Your task to perform on an android device: turn off airplane mode Image 0: 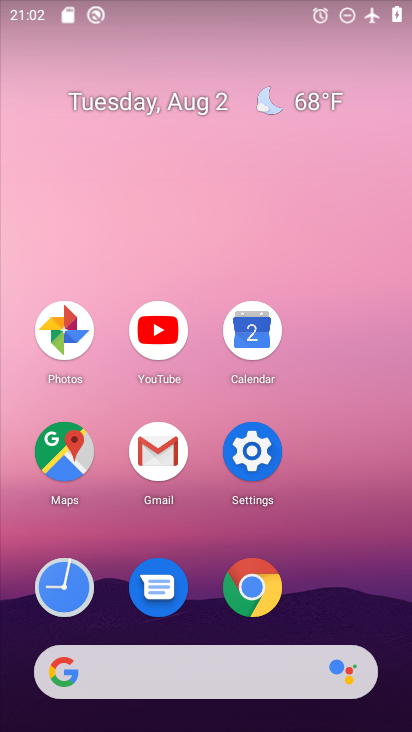
Step 0: click (253, 449)
Your task to perform on an android device: turn off airplane mode Image 1: 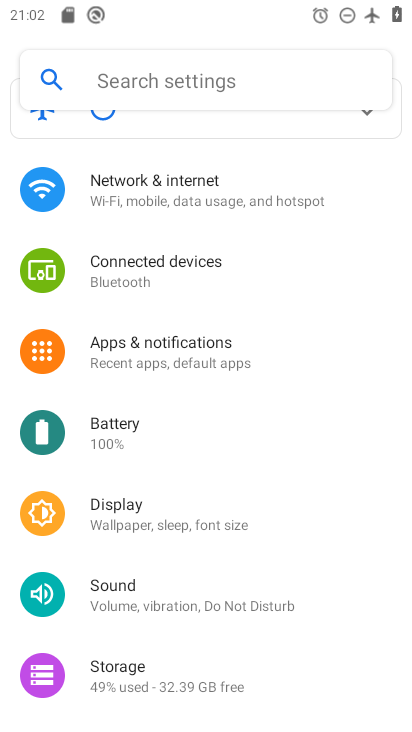
Step 1: click (157, 181)
Your task to perform on an android device: turn off airplane mode Image 2: 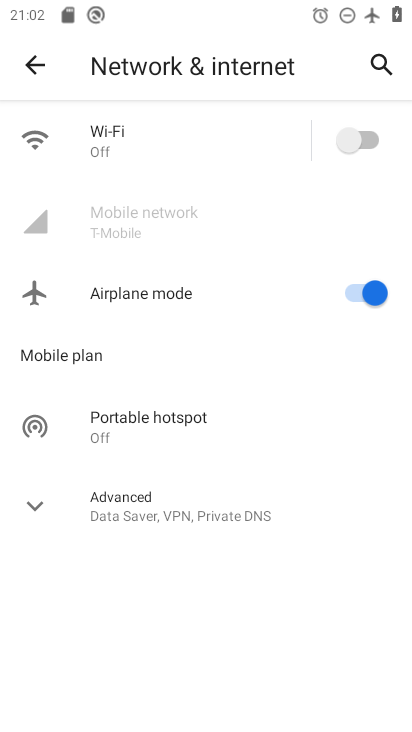
Step 2: click (376, 293)
Your task to perform on an android device: turn off airplane mode Image 3: 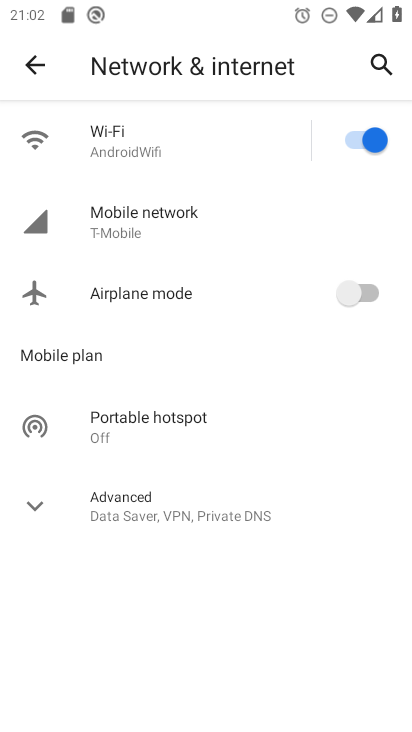
Step 3: task complete